Your task to perform on an android device: Search for Italian restaurants on Maps Image 0: 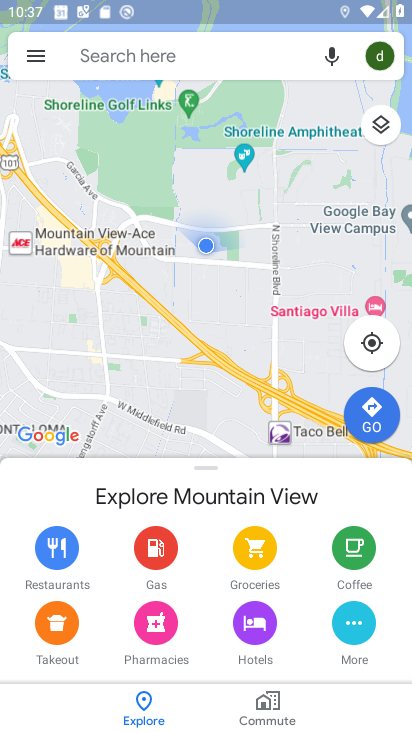
Step 0: click (153, 41)
Your task to perform on an android device: Search for Italian restaurants on Maps Image 1: 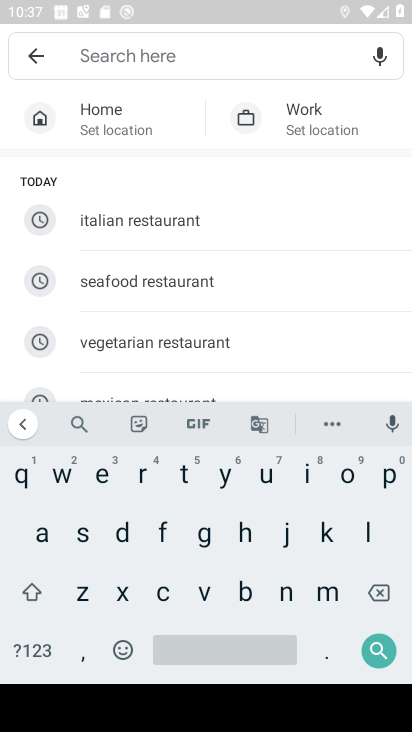
Step 1: click (127, 222)
Your task to perform on an android device: Search for Italian restaurants on Maps Image 2: 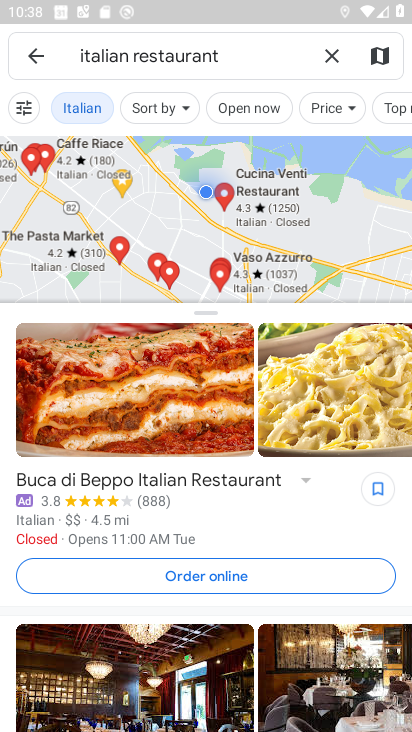
Step 2: click (152, 209)
Your task to perform on an android device: Search for Italian restaurants on Maps Image 3: 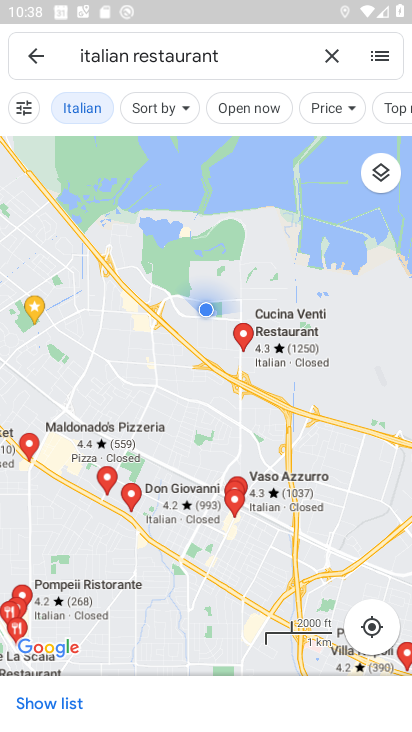
Step 3: task complete